Your task to perform on an android device: check storage Image 0: 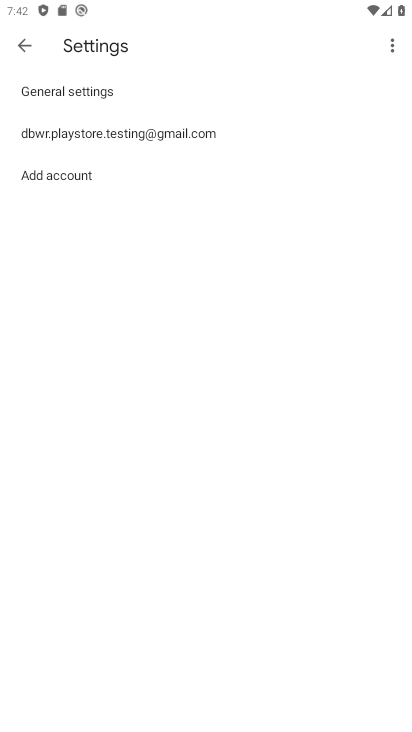
Step 0: drag from (347, 661) to (212, 127)
Your task to perform on an android device: check storage Image 1: 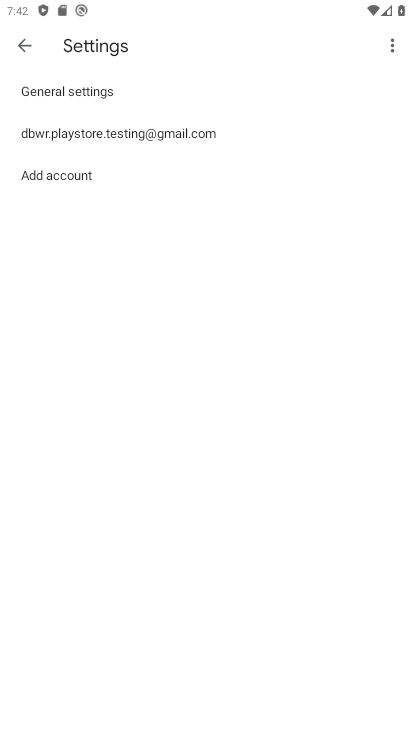
Step 1: click (21, 28)
Your task to perform on an android device: check storage Image 2: 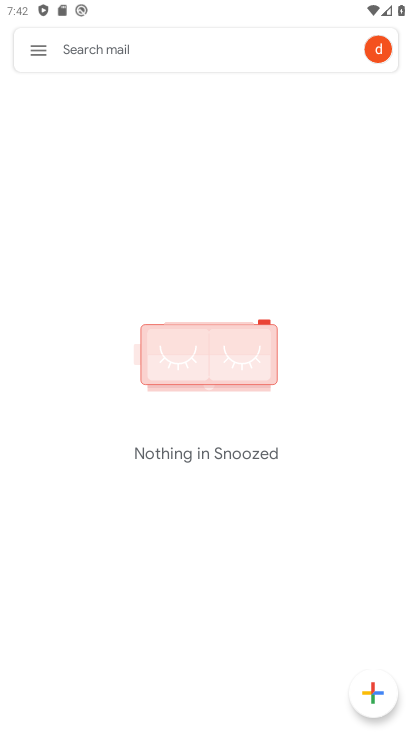
Step 2: press home button
Your task to perform on an android device: check storage Image 3: 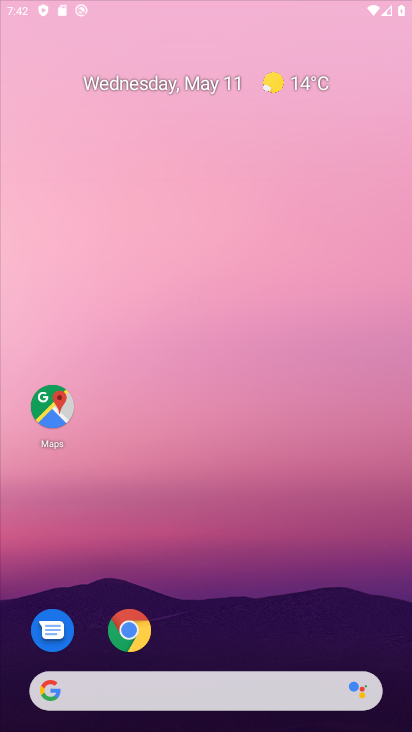
Step 3: press home button
Your task to perform on an android device: check storage Image 4: 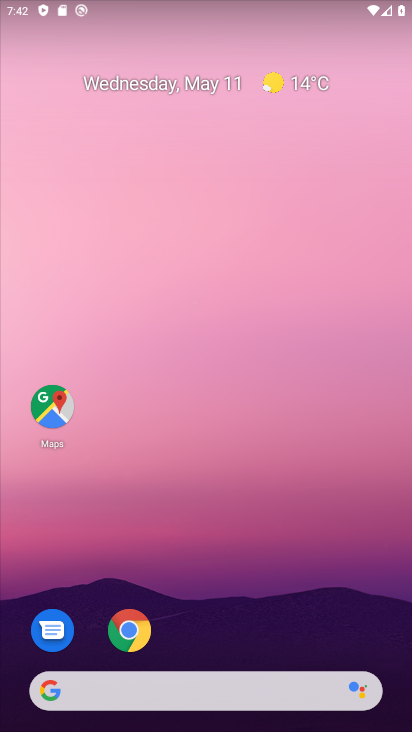
Step 4: drag from (284, 688) to (185, 182)
Your task to perform on an android device: check storage Image 5: 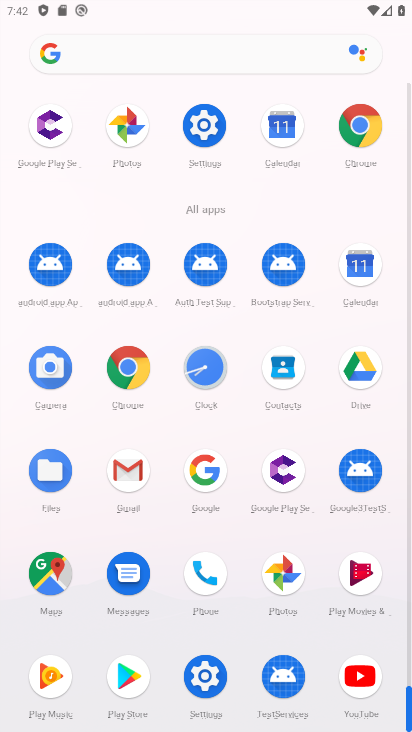
Step 5: click (205, 122)
Your task to perform on an android device: check storage Image 6: 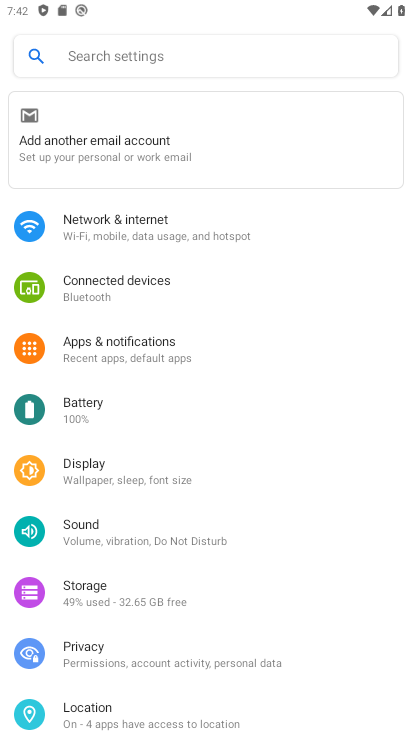
Step 6: click (79, 596)
Your task to perform on an android device: check storage Image 7: 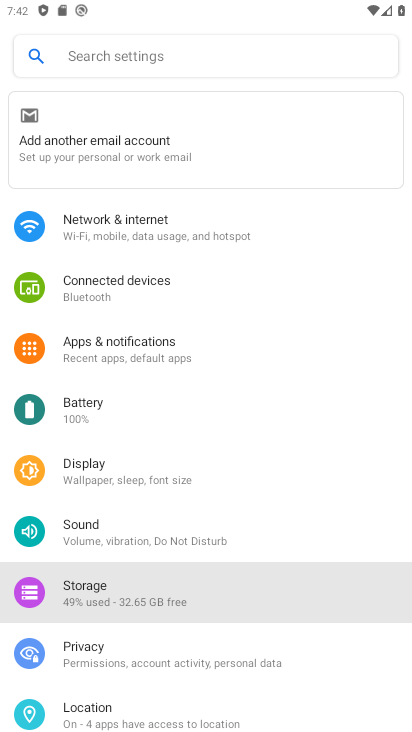
Step 7: click (74, 599)
Your task to perform on an android device: check storage Image 8: 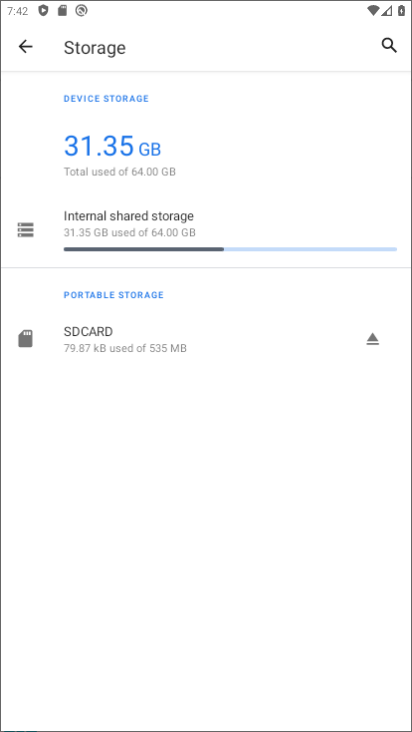
Step 8: click (77, 592)
Your task to perform on an android device: check storage Image 9: 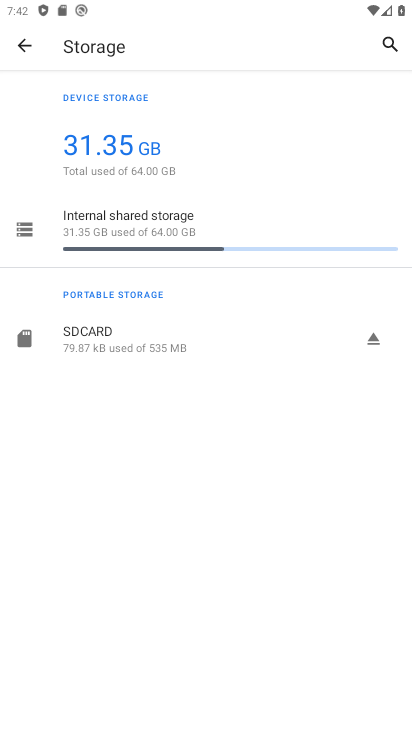
Step 9: task complete